Your task to perform on an android device: Go to Yahoo.com Image 0: 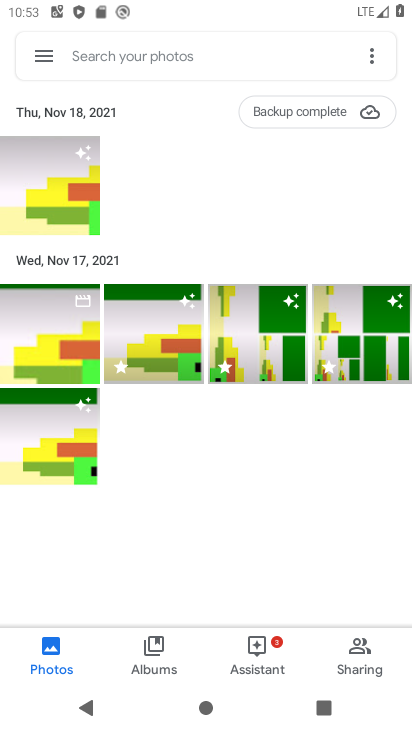
Step 0: press back button
Your task to perform on an android device: Go to Yahoo.com Image 1: 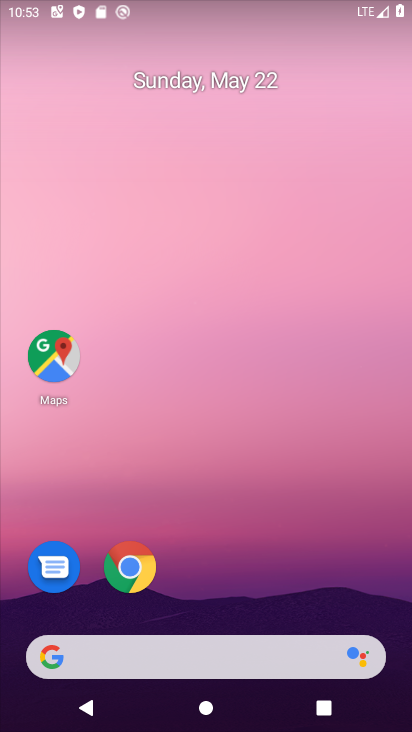
Step 1: drag from (270, 523) to (256, 8)
Your task to perform on an android device: Go to Yahoo.com Image 2: 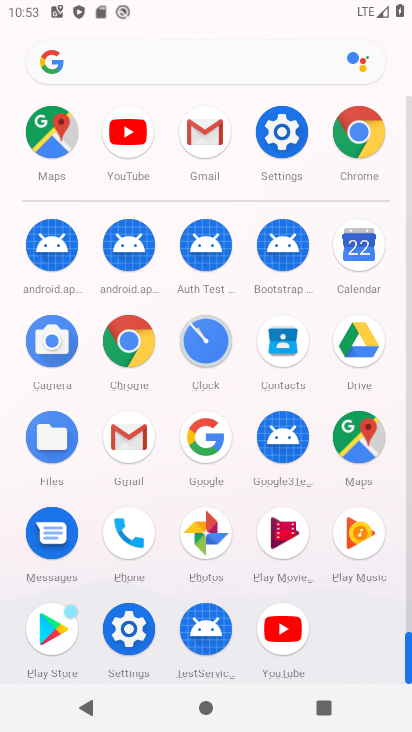
Step 2: click (126, 339)
Your task to perform on an android device: Go to Yahoo.com Image 3: 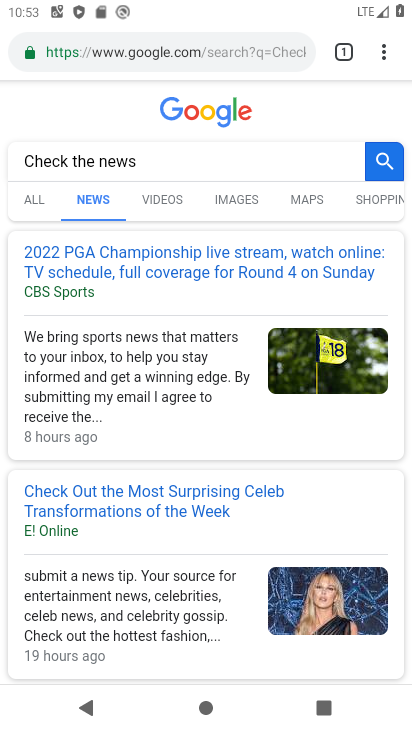
Step 3: click (189, 48)
Your task to perform on an android device: Go to Yahoo.com Image 4: 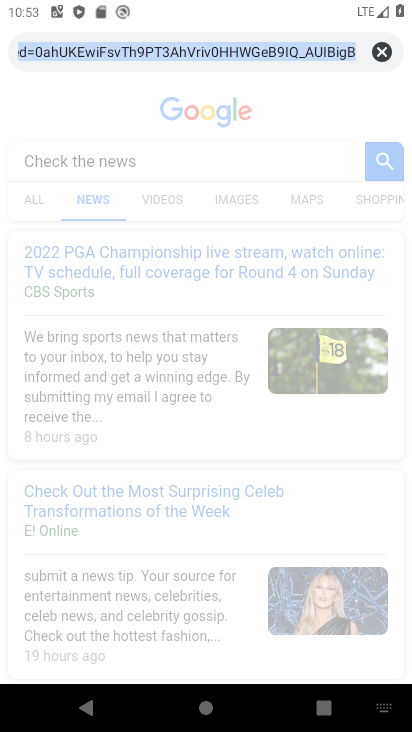
Step 4: click (379, 50)
Your task to perform on an android device: Go to Yahoo.com Image 5: 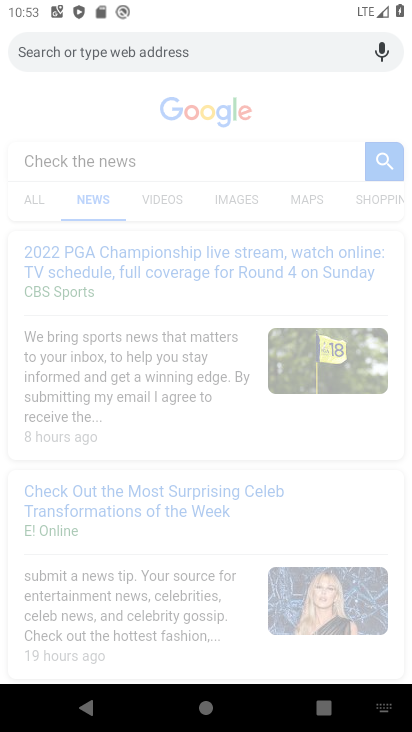
Step 5: type "Yahoo.com"
Your task to perform on an android device: Go to Yahoo.com Image 6: 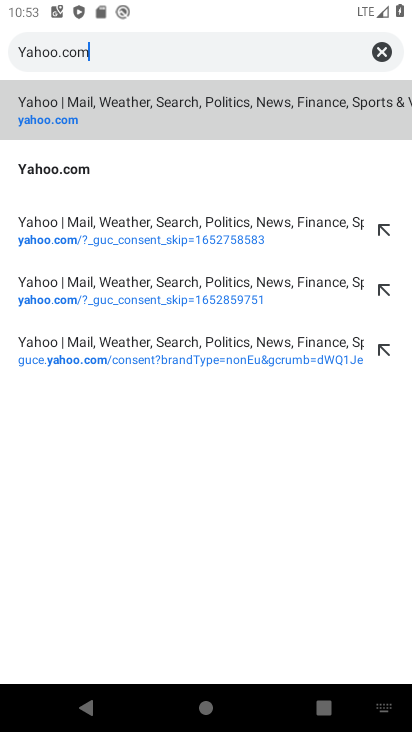
Step 6: type ""
Your task to perform on an android device: Go to Yahoo.com Image 7: 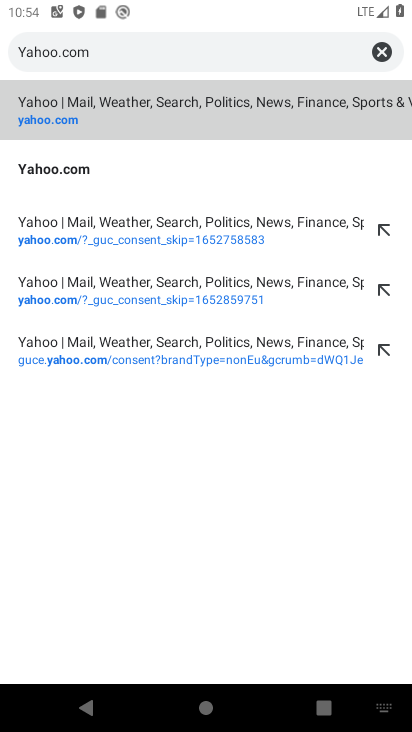
Step 7: click (159, 108)
Your task to perform on an android device: Go to Yahoo.com Image 8: 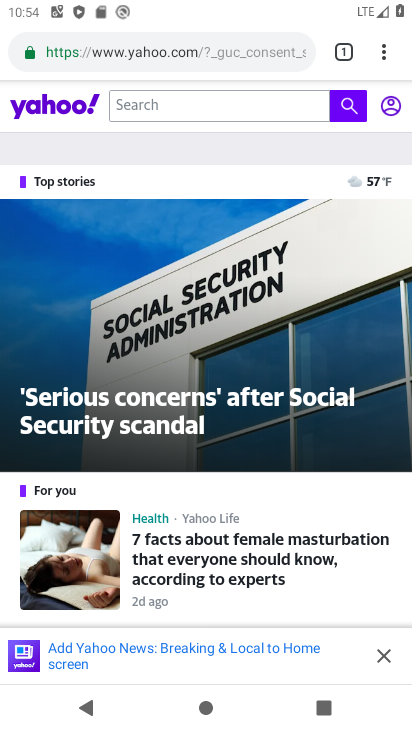
Step 8: task complete